Your task to perform on an android device: empty trash in the gmail app Image 0: 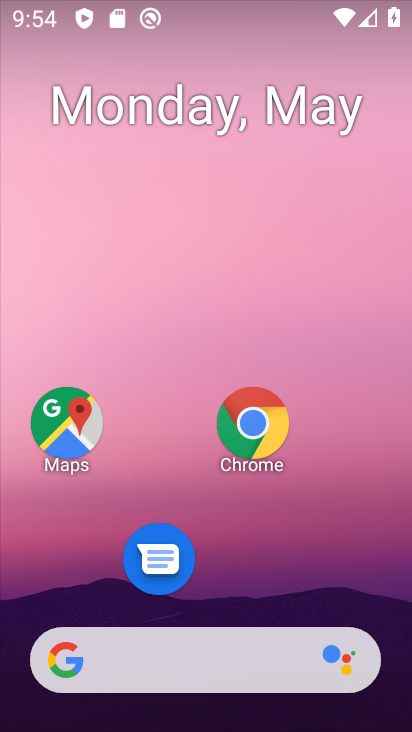
Step 0: drag from (233, 583) to (401, 146)
Your task to perform on an android device: empty trash in the gmail app Image 1: 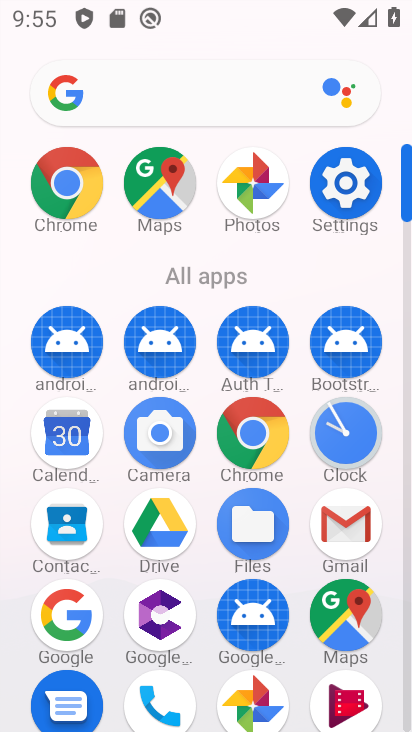
Step 1: click (352, 517)
Your task to perform on an android device: empty trash in the gmail app Image 2: 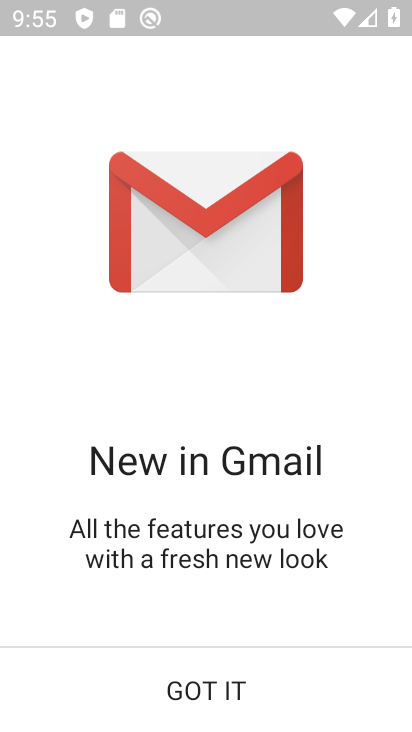
Step 2: click (188, 686)
Your task to perform on an android device: empty trash in the gmail app Image 3: 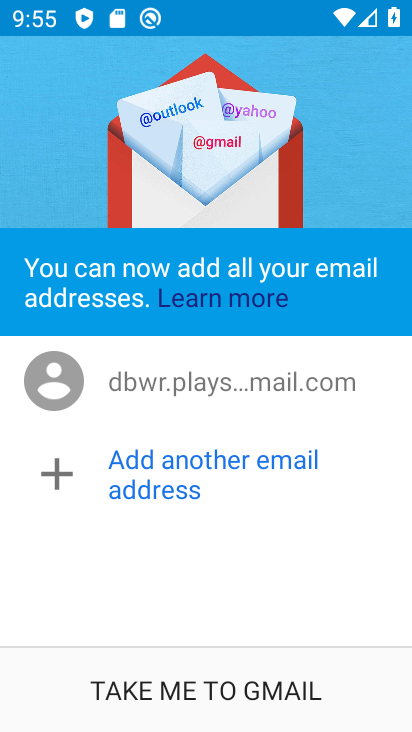
Step 3: click (188, 686)
Your task to perform on an android device: empty trash in the gmail app Image 4: 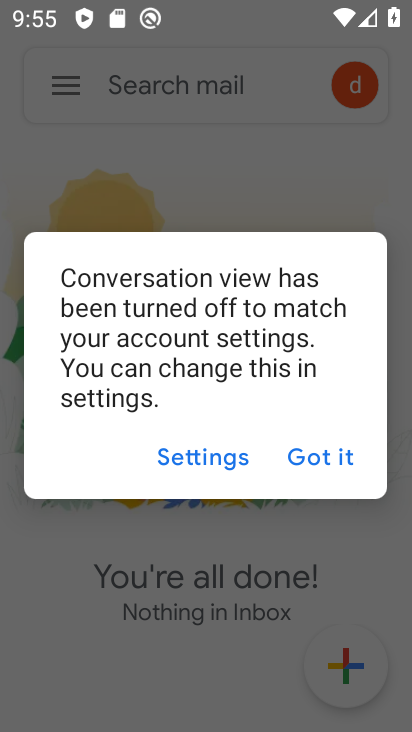
Step 4: click (356, 461)
Your task to perform on an android device: empty trash in the gmail app Image 5: 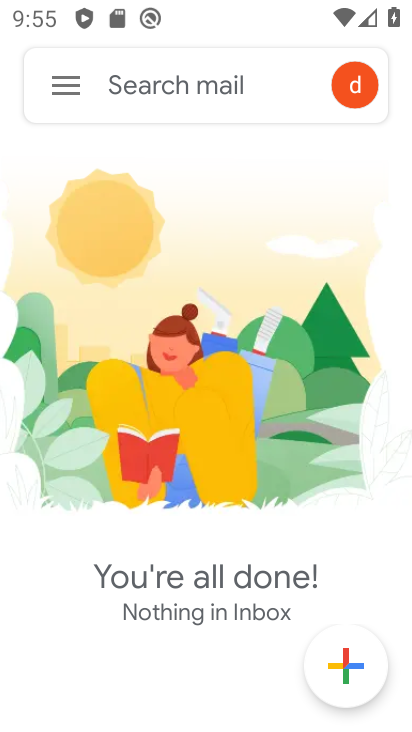
Step 5: click (50, 66)
Your task to perform on an android device: empty trash in the gmail app Image 6: 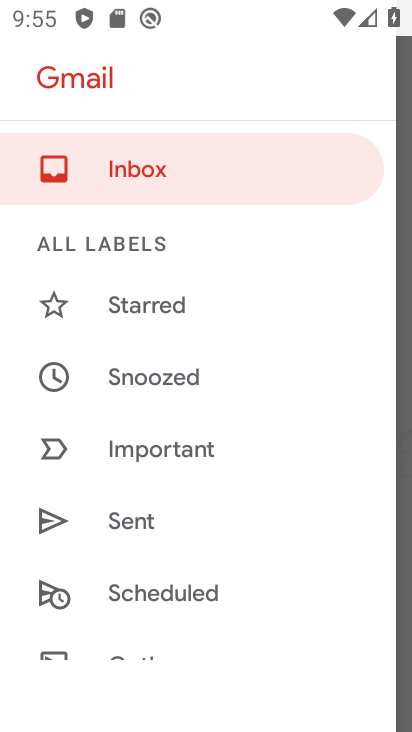
Step 6: drag from (194, 582) to (184, 123)
Your task to perform on an android device: empty trash in the gmail app Image 7: 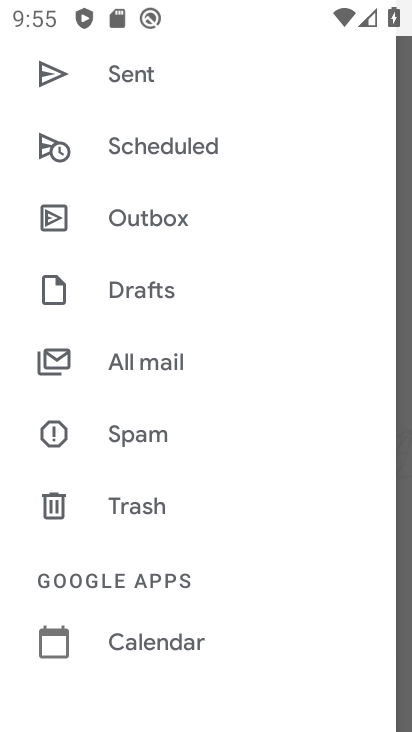
Step 7: click (125, 529)
Your task to perform on an android device: empty trash in the gmail app Image 8: 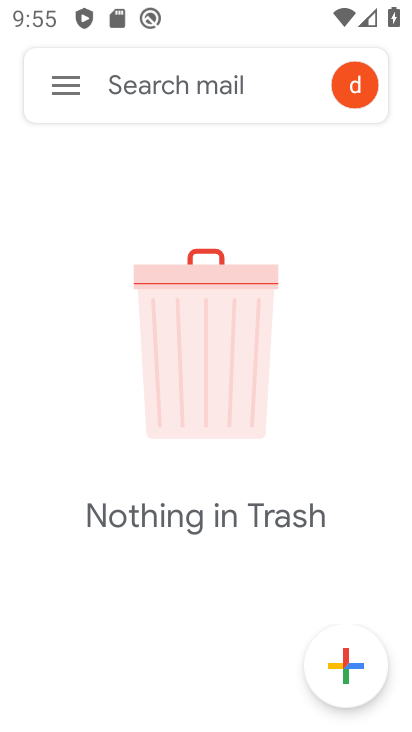
Step 8: task complete